Your task to perform on an android device: Open the Play Movies app and select the watchlist tab. Image 0: 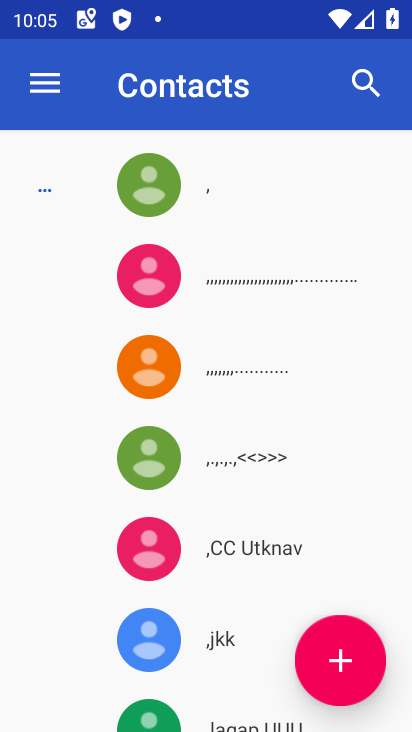
Step 0: press back button
Your task to perform on an android device: Open the Play Movies app and select the watchlist tab. Image 1: 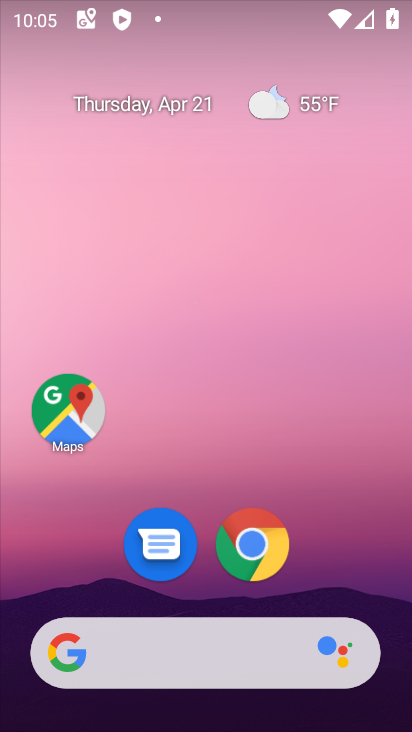
Step 1: drag from (314, 371) to (236, 7)
Your task to perform on an android device: Open the Play Movies app and select the watchlist tab. Image 2: 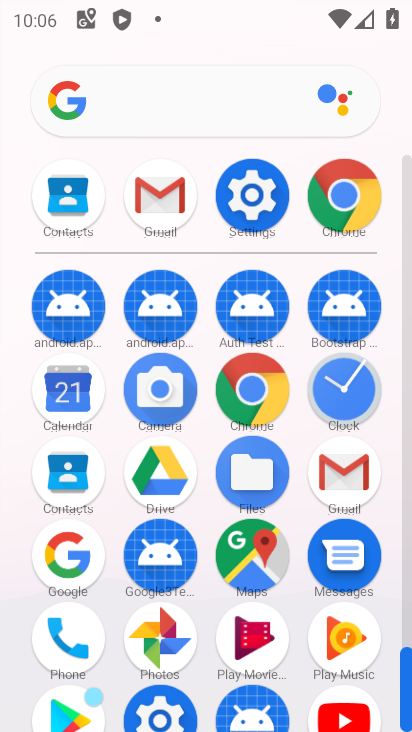
Step 2: drag from (11, 549) to (18, 339)
Your task to perform on an android device: Open the Play Movies app and select the watchlist tab. Image 3: 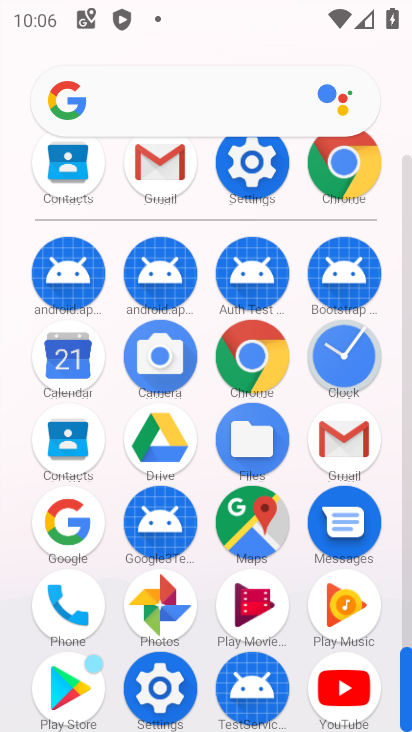
Step 3: click (251, 603)
Your task to perform on an android device: Open the Play Movies app and select the watchlist tab. Image 4: 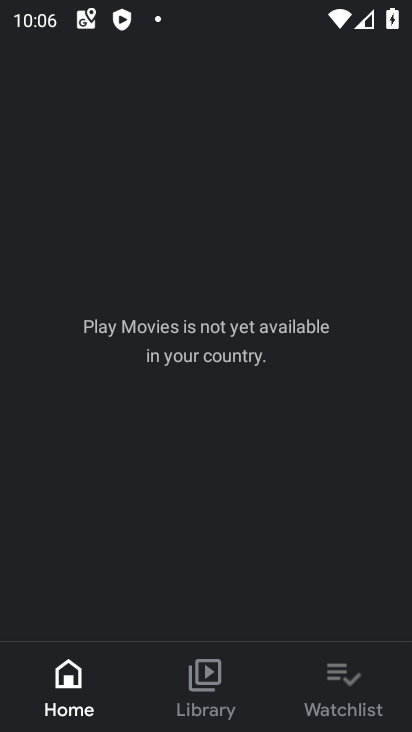
Step 4: click (363, 682)
Your task to perform on an android device: Open the Play Movies app and select the watchlist tab. Image 5: 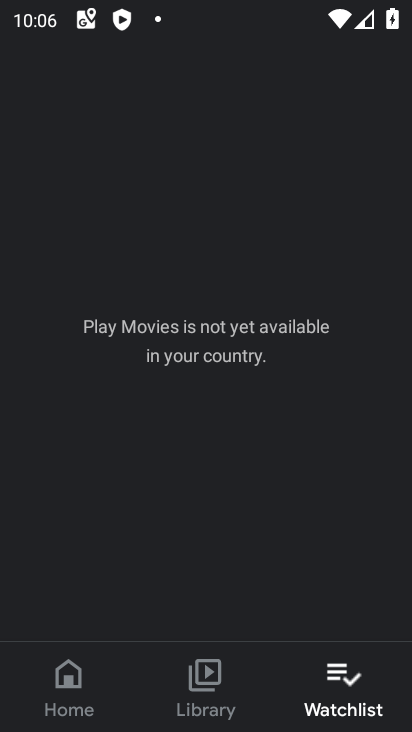
Step 5: task complete